Your task to perform on an android device: change the upload size in google photos Image 0: 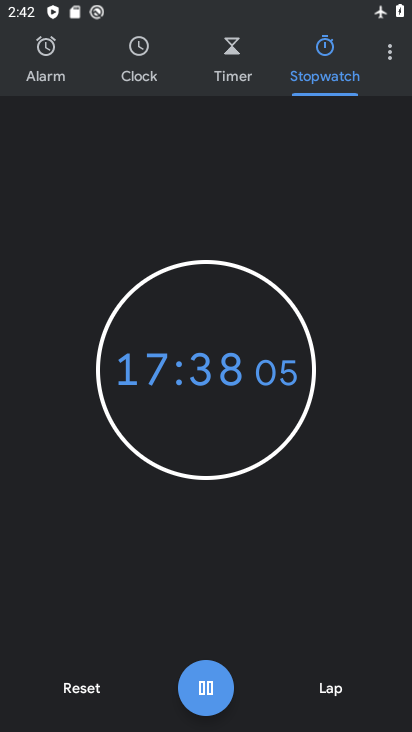
Step 0: press home button
Your task to perform on an android device: change the upload size in google photos Image 1: 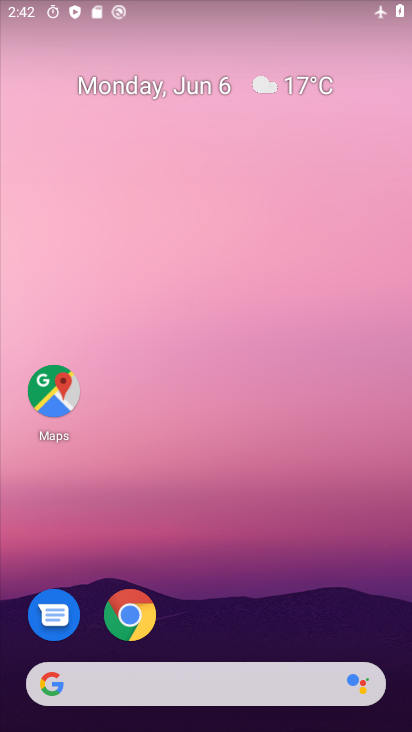
Step 1: drag from (238, 612) to (337, 3)
Your task to perform on an android device: change the upload size in google photos Image 2: 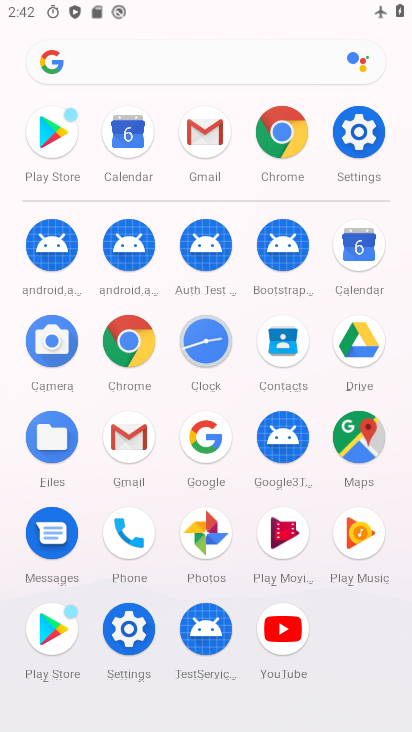
Step 2: click (215, 547)
Your task to perform on an android device: change the upload size in google photos Image 3: 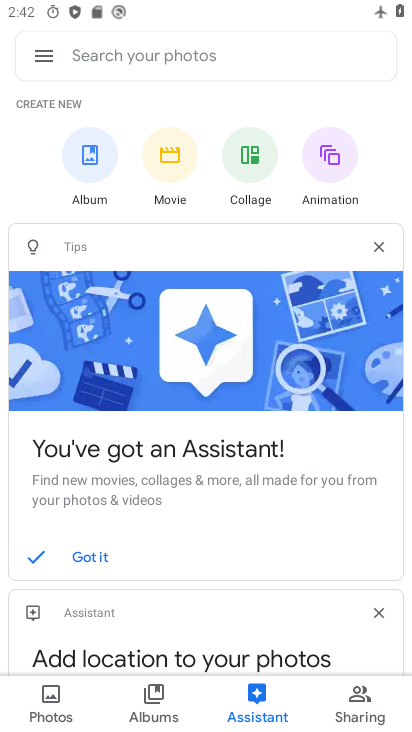
Step 3: click (34, 55)
Your task to perform on an android device: change the upload size in google photos Image 4: 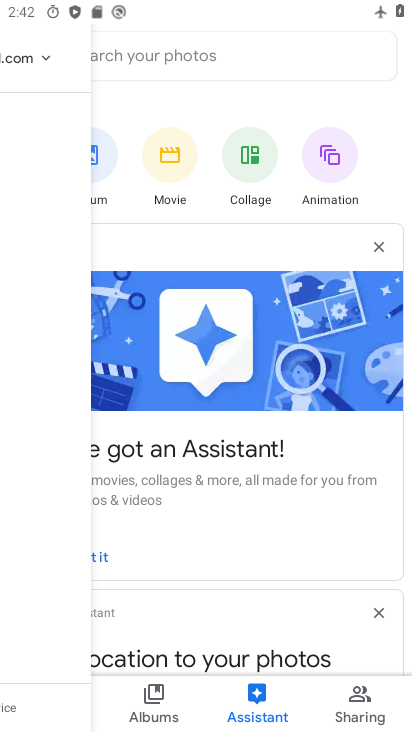
Step 4: click (42, 60)
Your task to perform on an android device: change the upload size in google photos Image 5: 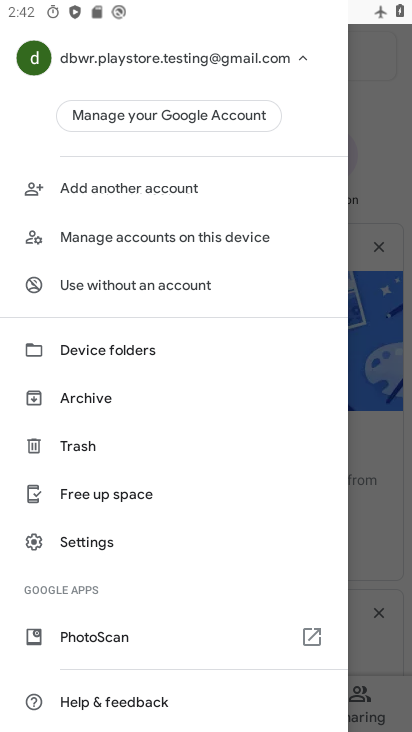
Step 5: click (94, 544)
Your task to perform on an android device: change the upload size in google photos Image 6: 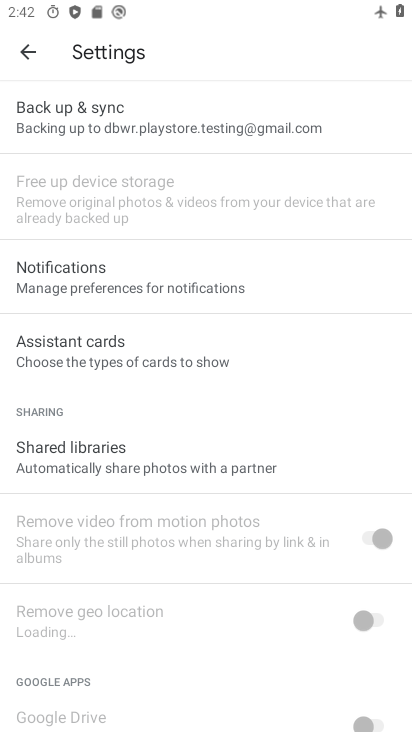
Step 6: click (93, 542)
Your task to perform on an android device: change the upload size in google photos Image 7: 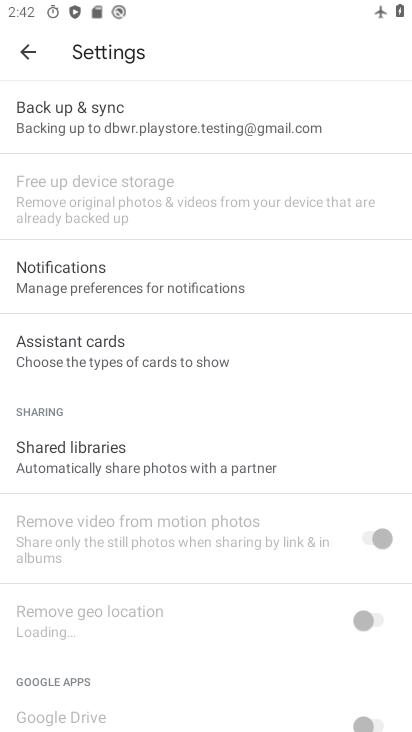
Step 7: click (173, 412)
Your task to perform on an android device: change the upload size in google photos Image 8: 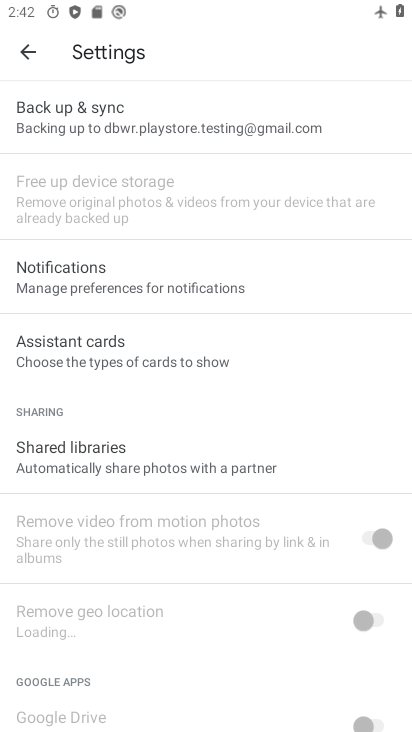
Step 8: click (155, 102)
Your task to perform on an android device: change the upload size in google photos Image 9: 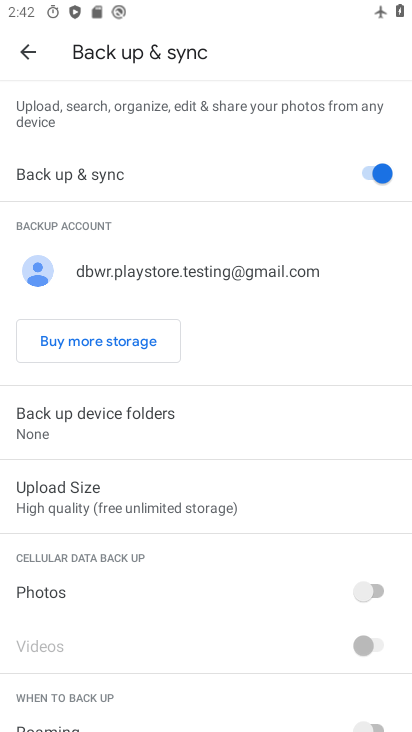
Step 9: click (141, 502)
Your task to perform on an android device: change the upload size in google photos Image 10: 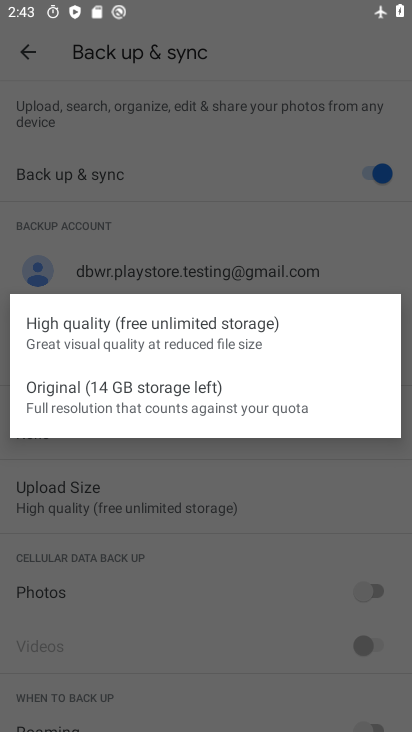
Step 10: click (121, 392)
Your task to perform on an android device: change the upload size in google photos Image 11: 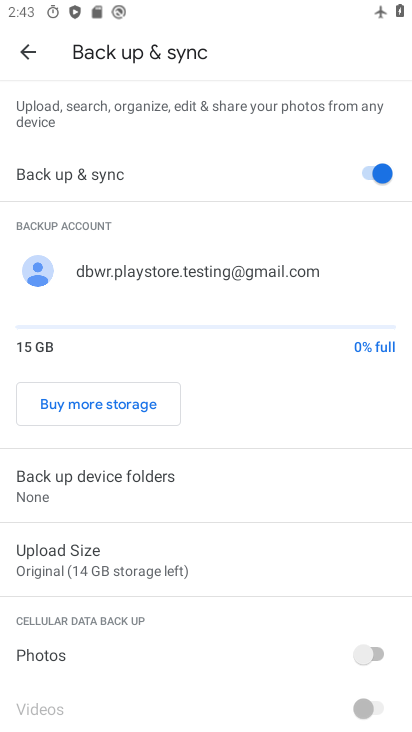
Step 11: task complete